Your task to perform on an android device: turn off airplane mode Image 0: 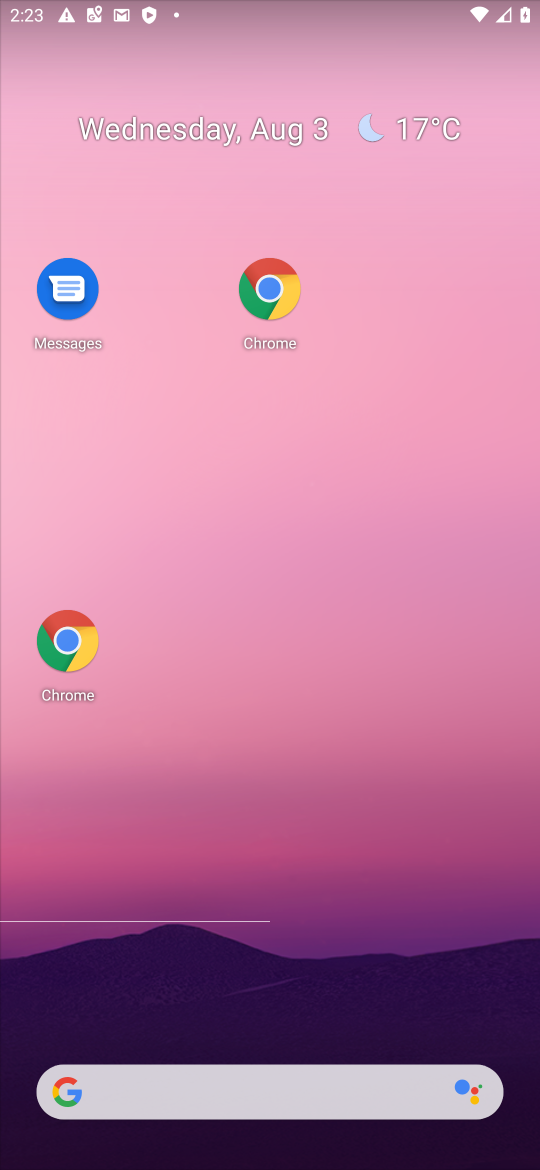
Step 0: click (104, 853)
Your task to perform on an android device: turn off airplane mode Image 1: 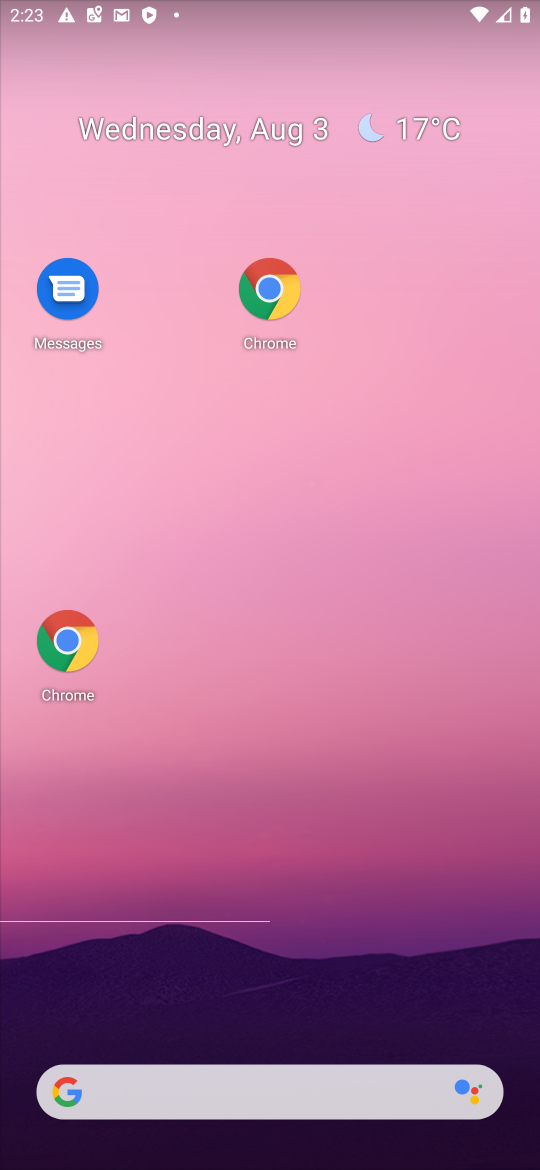
Step 1: task complete